Your task to perform on an android device: Go to Wikipedia Image 0: 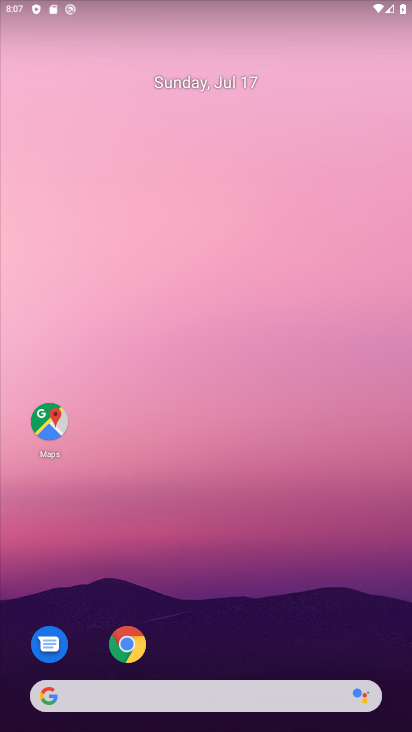
Step 0: drag from (262, 489) to (248, 115)
Your task to perform on an android device: Go to Wikipedia Image 1: 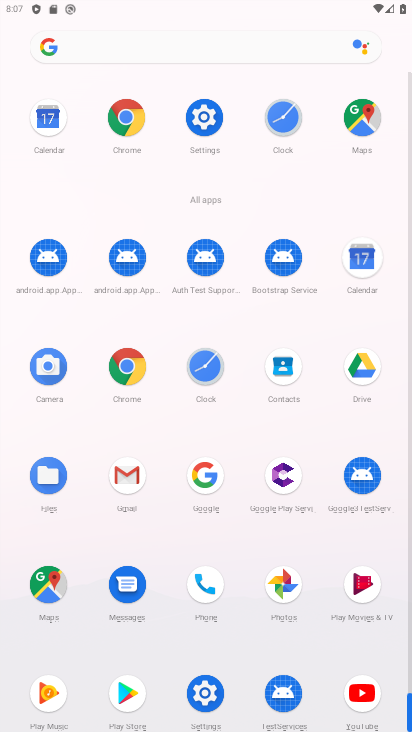
Step 1: click (139, 124)
Your task to perform on an android device: Go to Wikipedia Image 2: 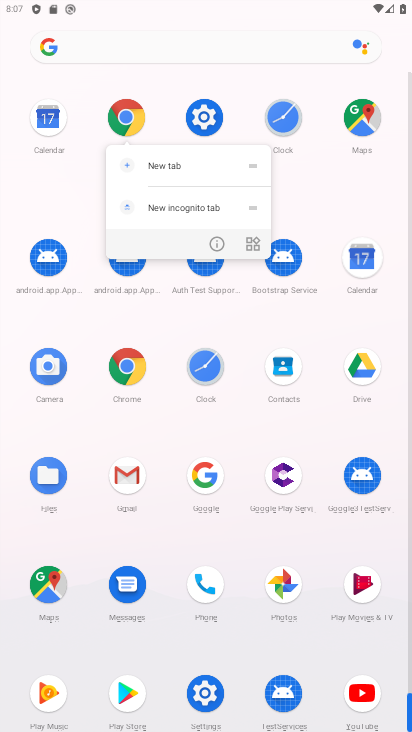
Step 2: click (127, 123)
Your task to perform on an android device: Go to Wikipedia Image 3: 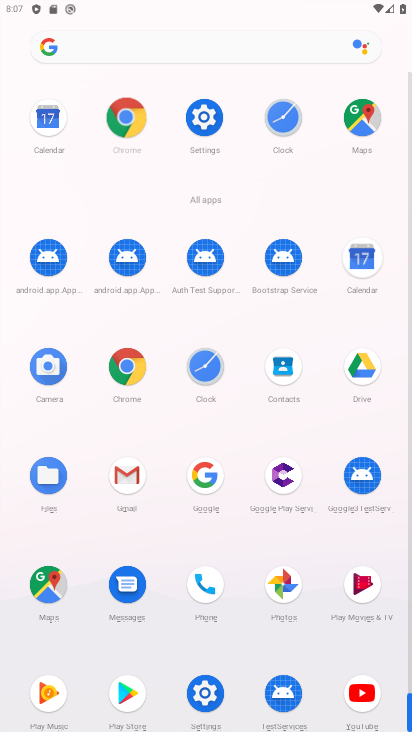
Step 3: click (127, 122)
Your task to perform on an android device: Go to Wikipedia Image 4: 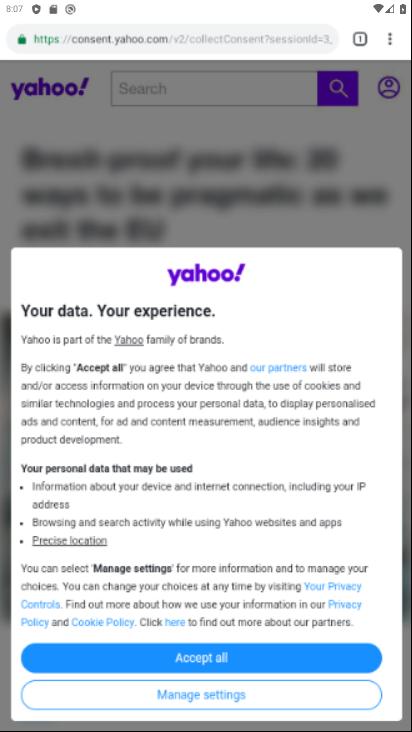
Step 4: click (131, 123)
Your task to perform on an android device: Go to Wikipedia Image 5: 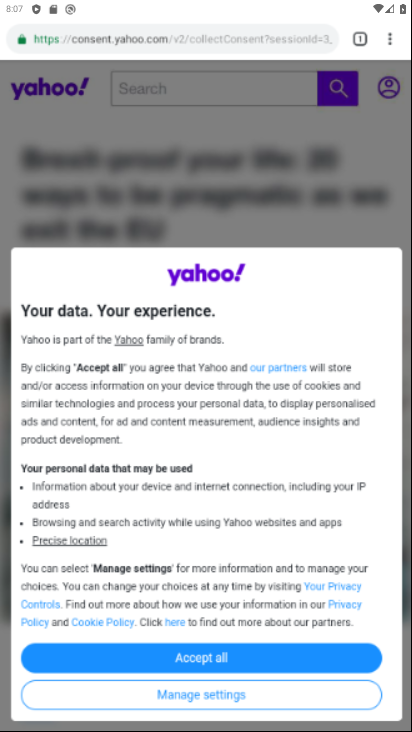
Step 5: click (132, 124)
Your task to perform on an android device: Go to Wikipedia Image 6: 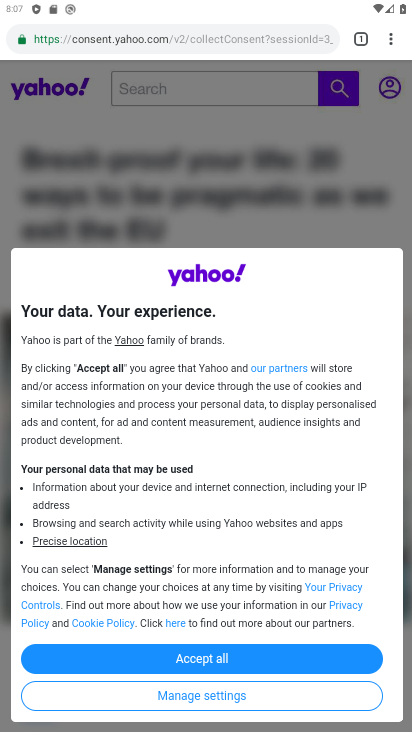
Step 6: drag from (389, 32) to (233, 76)
Your task to perform on an android device: Go to Wikipedia Image 7: 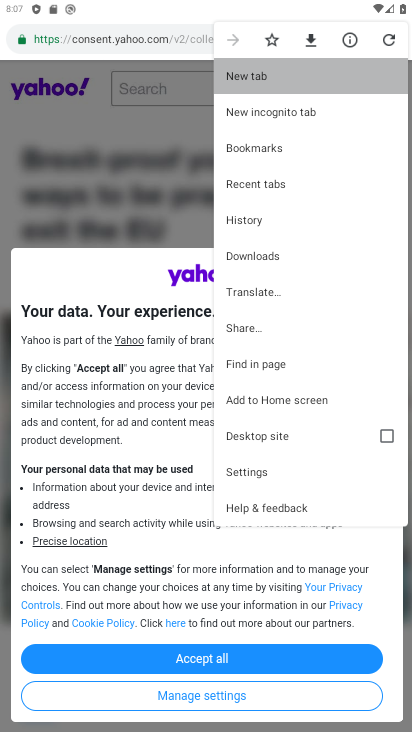
Step 7: click (236, 71)
Your task to perform on an android device: Go to Wikipedia Image 8: 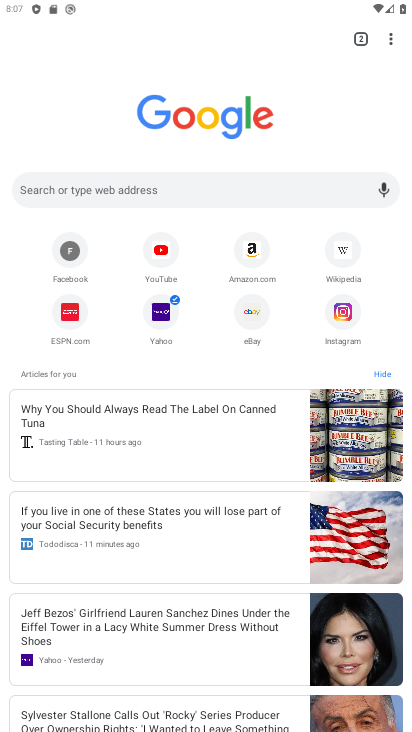
Step 8: click (343, 253)
Your task to perform on an android device: Go to Wikipedia Image 9: 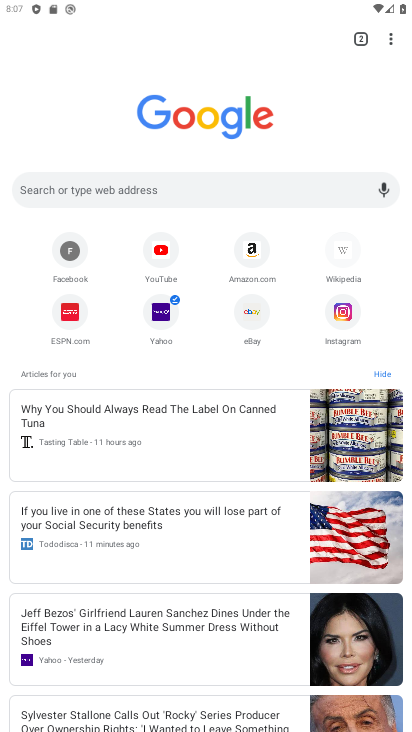
Step 9: click (344, 266)
Your task to perform on an android device: Go to Wikipedia Image 10: 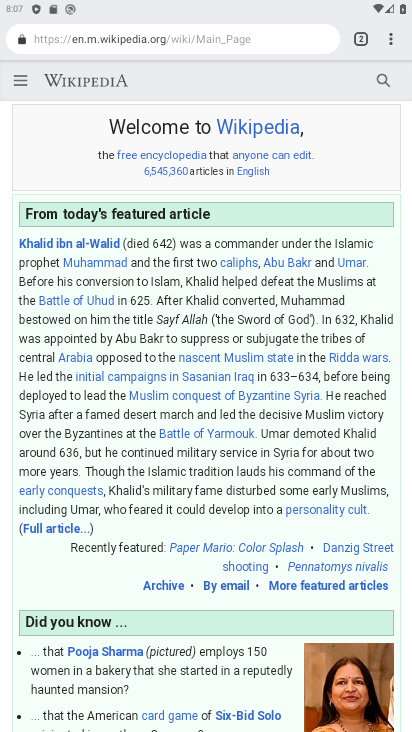
Step 10: task complete